Your task to perform on an android device: Clear all items from cart on bestbuy. Image 0: 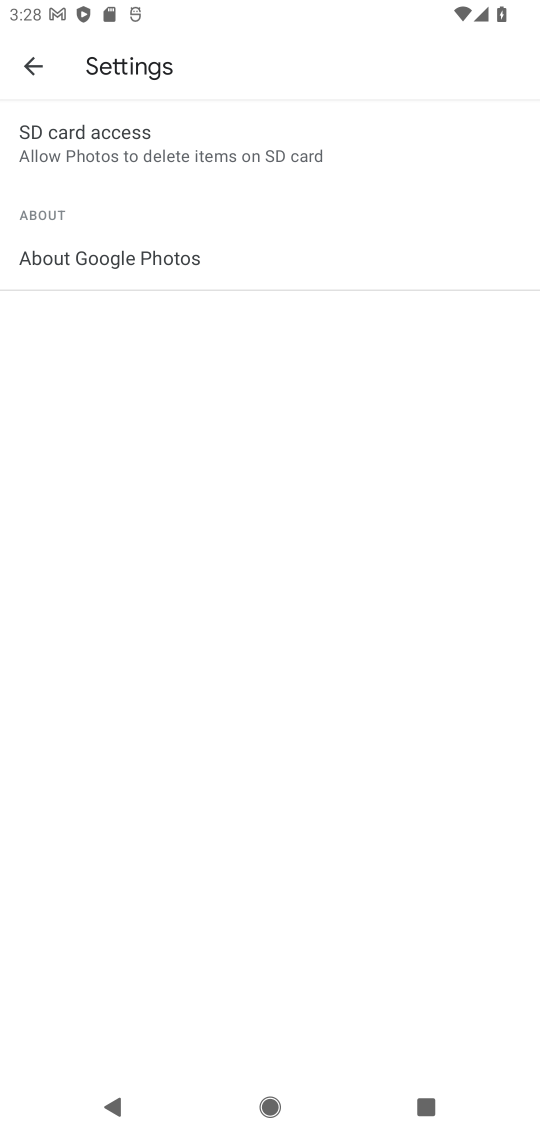
Step 0: press home button
Your task to perform on an android device: Clear all items from cart on bestbuy. Image 1: 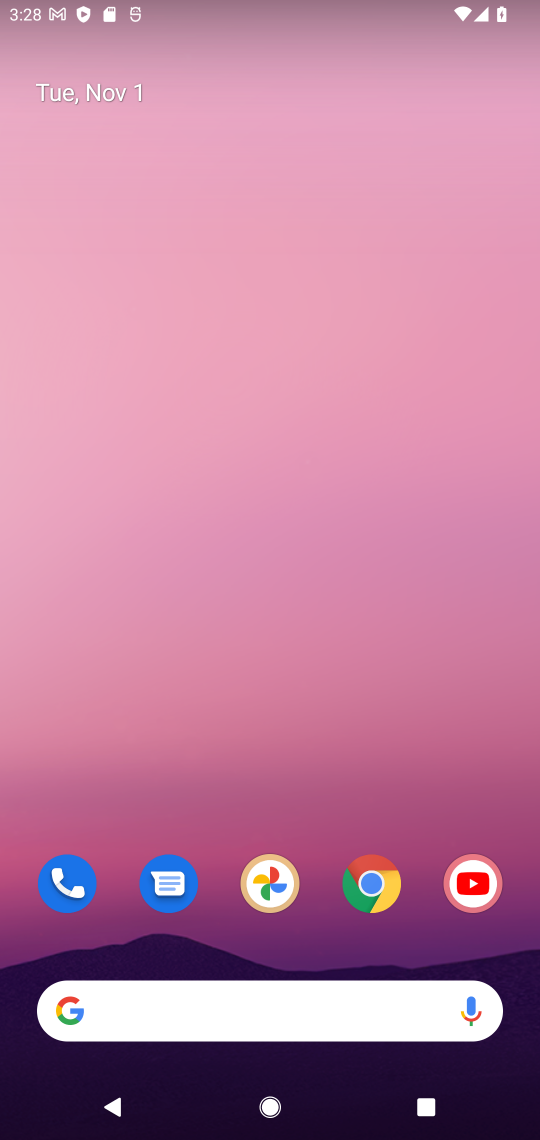
Step 1: click (369, 881)
Your task to perform on an android device: Clear all items from cart on bestbuy. Image 2: 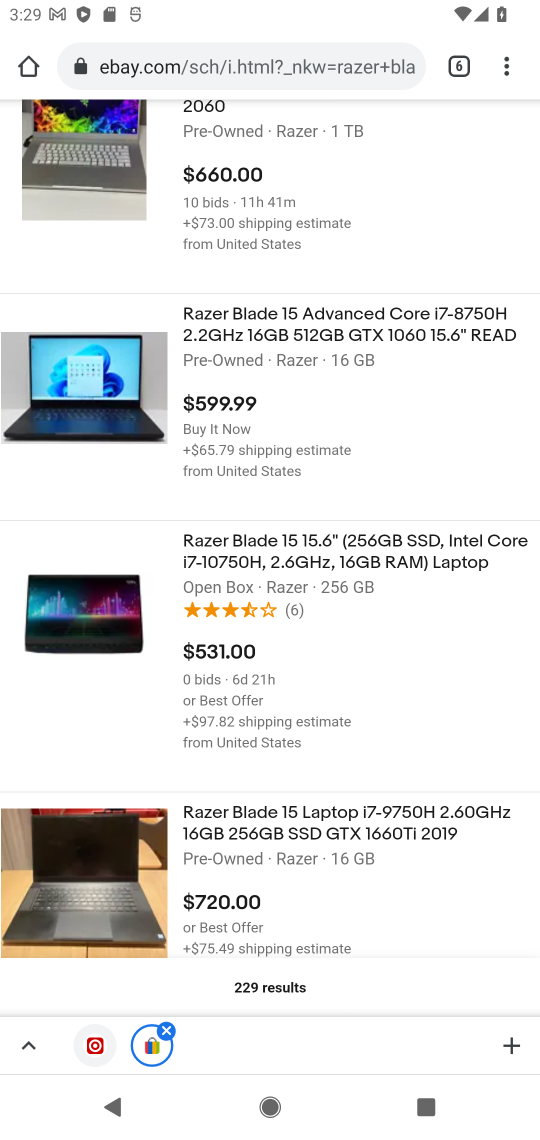
Step 2: click (454, 59)
Your task to perform on an android device: Clear all items from cart on bestbuy. Image 3: 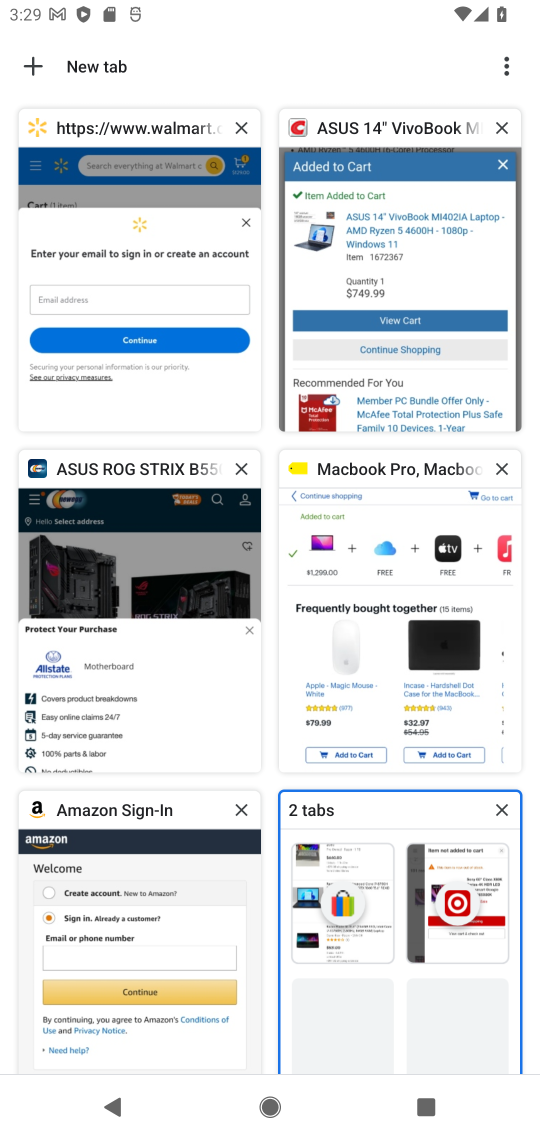
Step 3: click (500, 804)
Your task to perform on an android device: Clear all items from cart on bestbuy. Image 4: 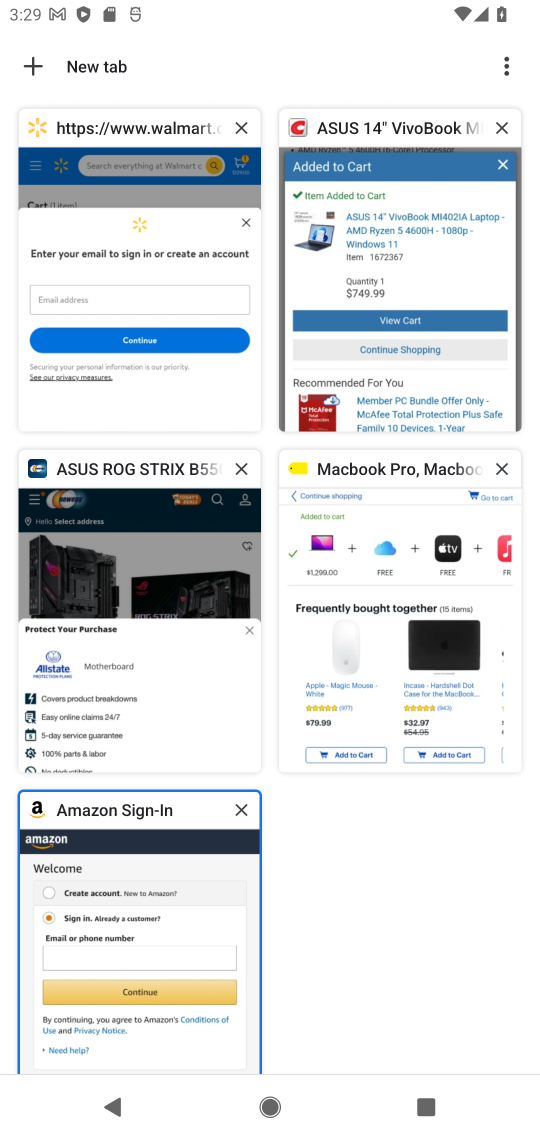
Step 4: click (373, 569)
Your task to perform on an android device: Clear all items from cart on bestbuy. Image 5: 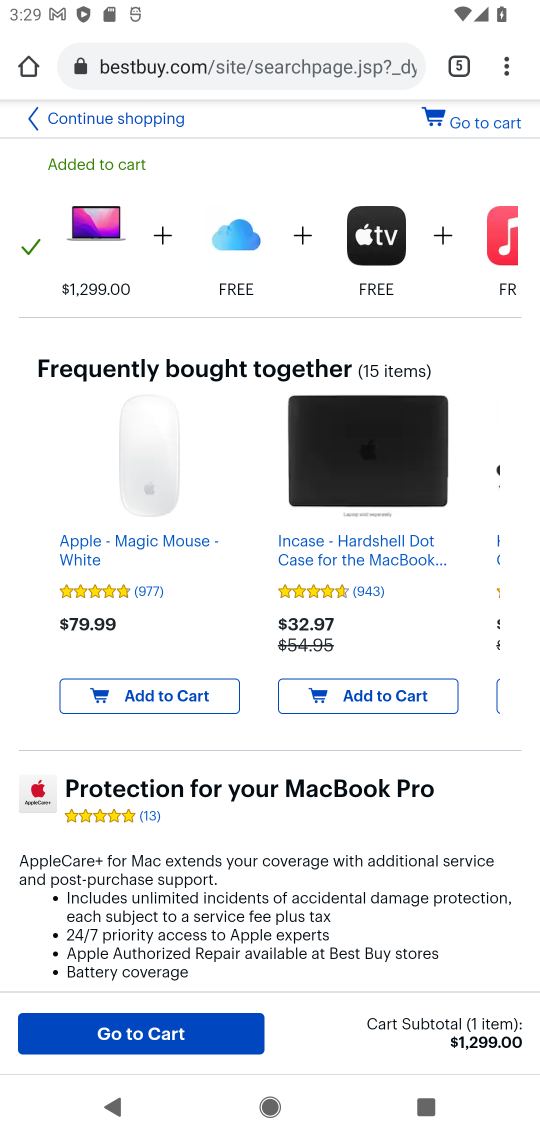
Step 5: click (482, 123)
Your task to perform on an android device: Clear all items from cart on bestbuy. Image 6: 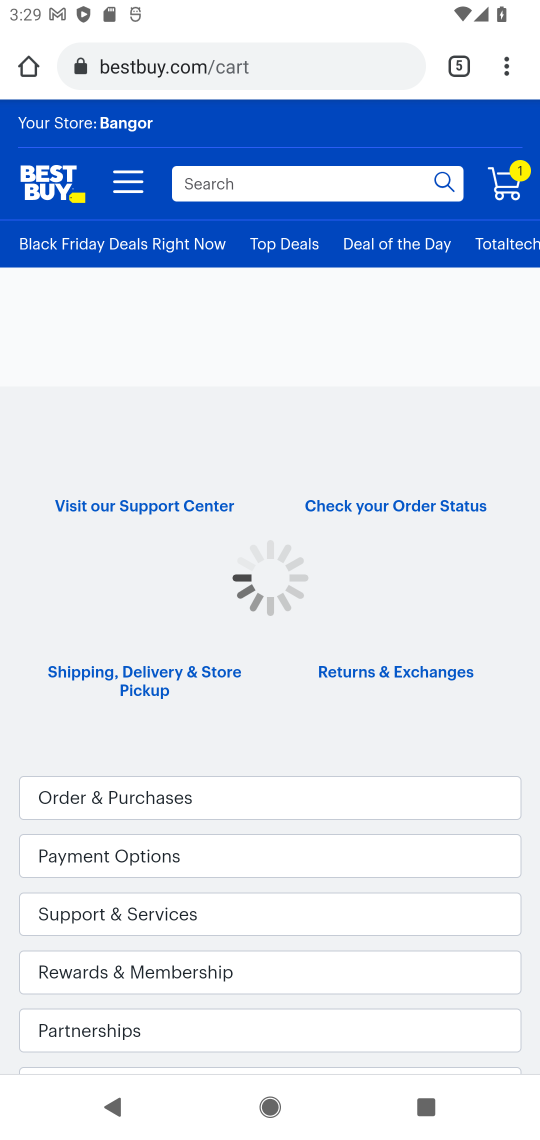
Step 6: click (499, 187)
Your task to perform on an android device: Clear all items from cart on bestbuy. Image 7: 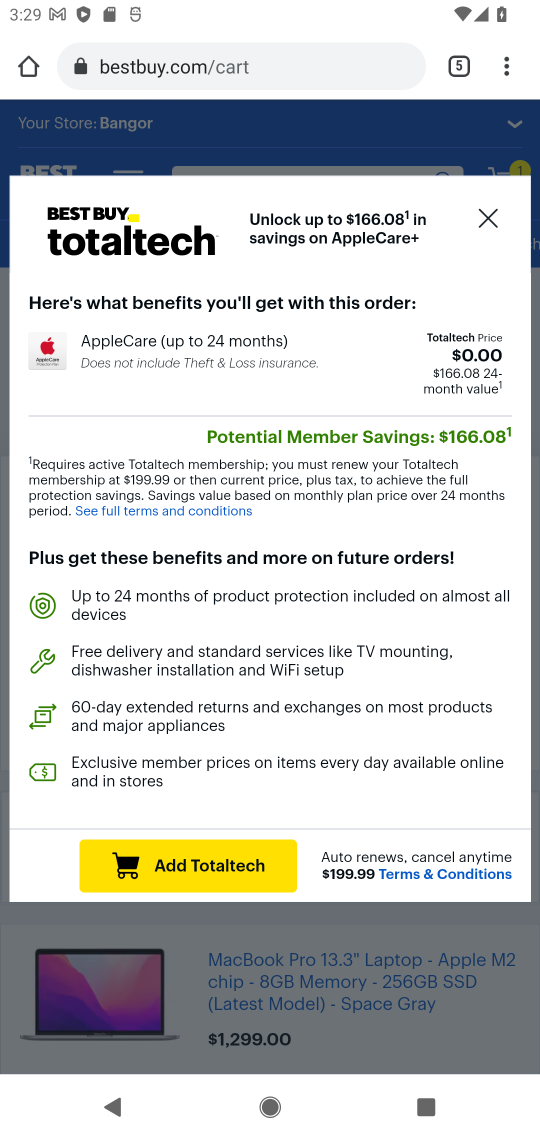
Step 7: click (489, 223)
Your task to perform on an android device: Clear all items from cart on bestbuy. Image 8: 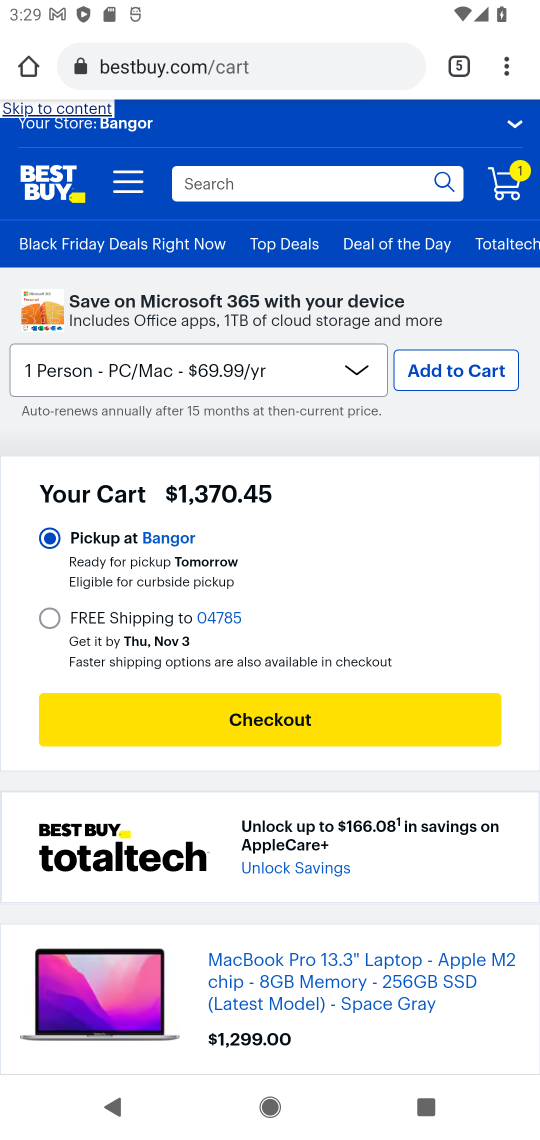
Step 8: drag from (256, 851) to (393, 390)
Your task to perform on an android device: Clear all items from cart on bestbuy. Image 9: 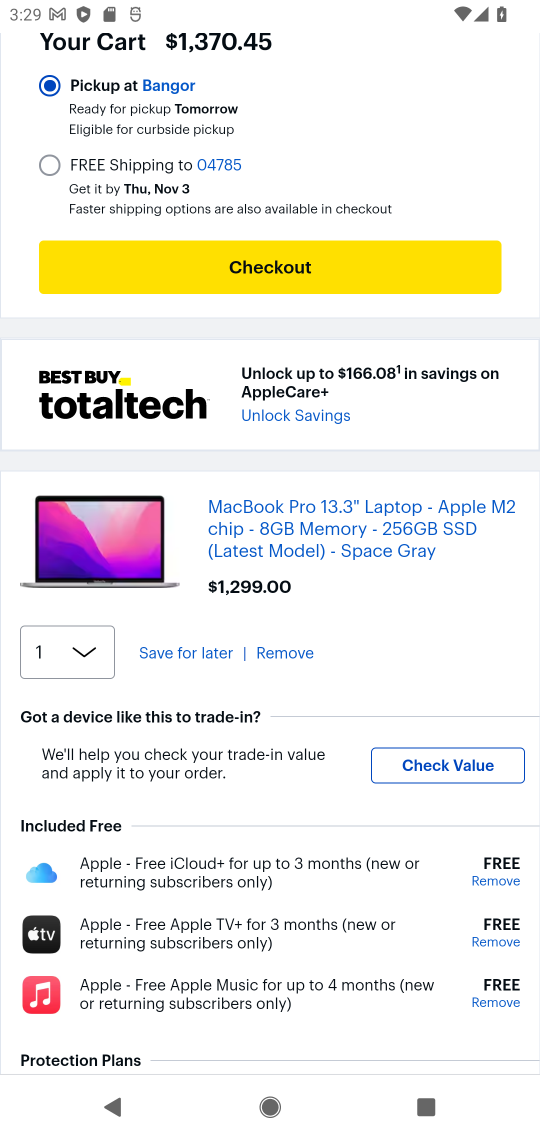
Step 9: click (274, 651)
Your task to perform on an android device: Clear all items from cart on bestbuy. Image 10: 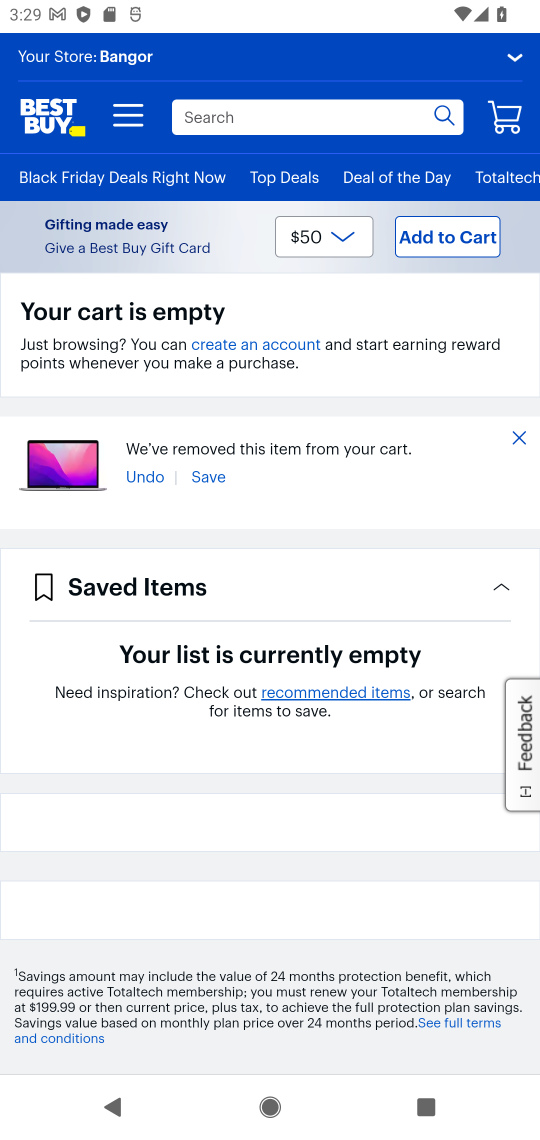
Step 10: task complete